Your task to perform on an android device: uninstall "Google Drive" Image 0: 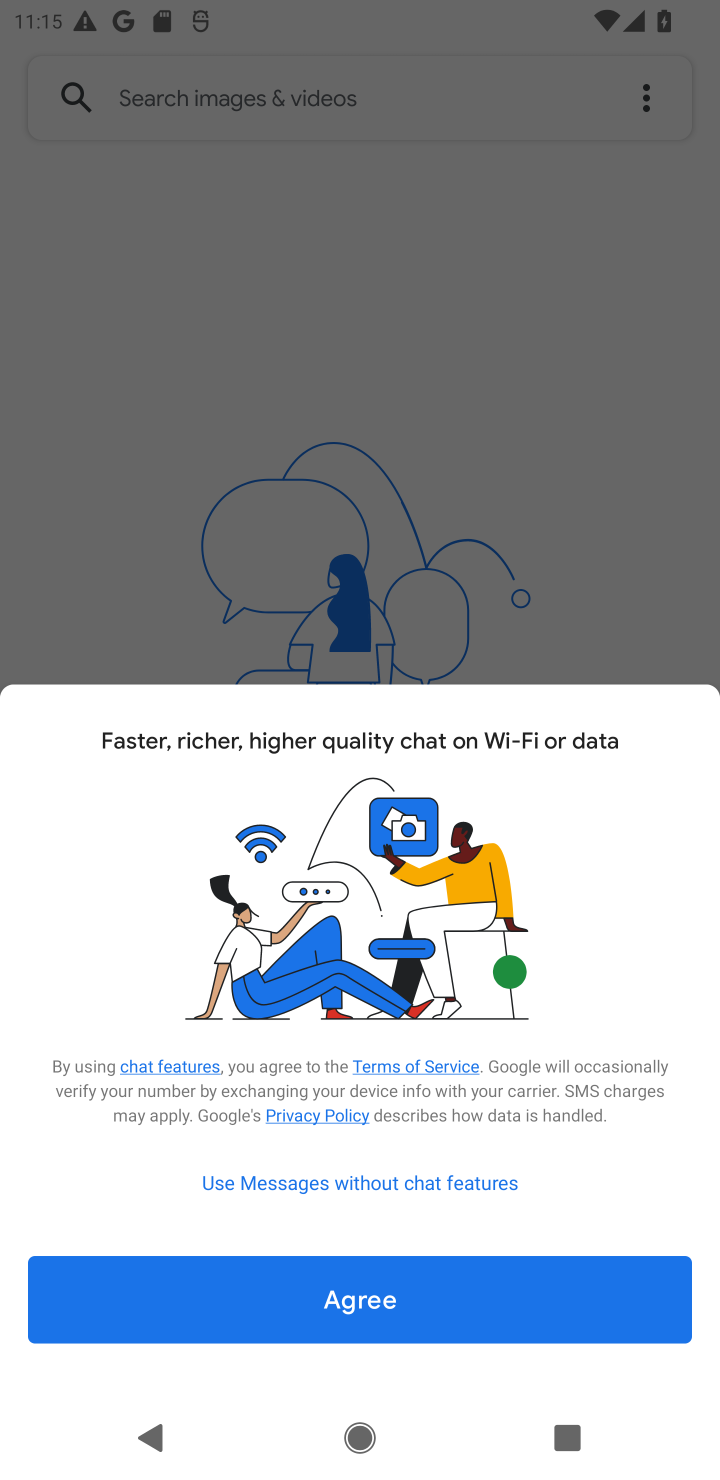
Step 0: press home button
Your task to perform on an android device: uninstall "Google Drive" Image 1: 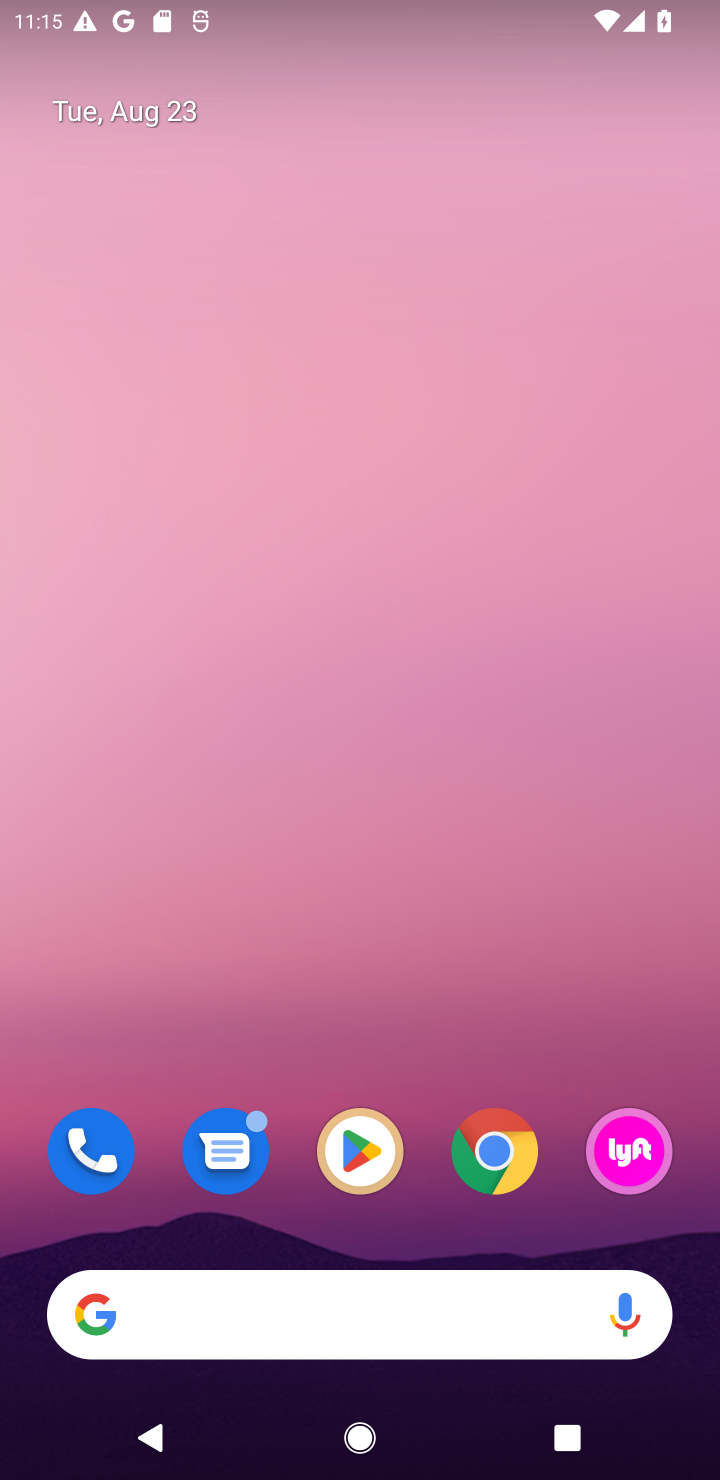
Step 1: click (382, 1145)
Your task to perform on an android device: uninstall "Google Drive" Image 2: 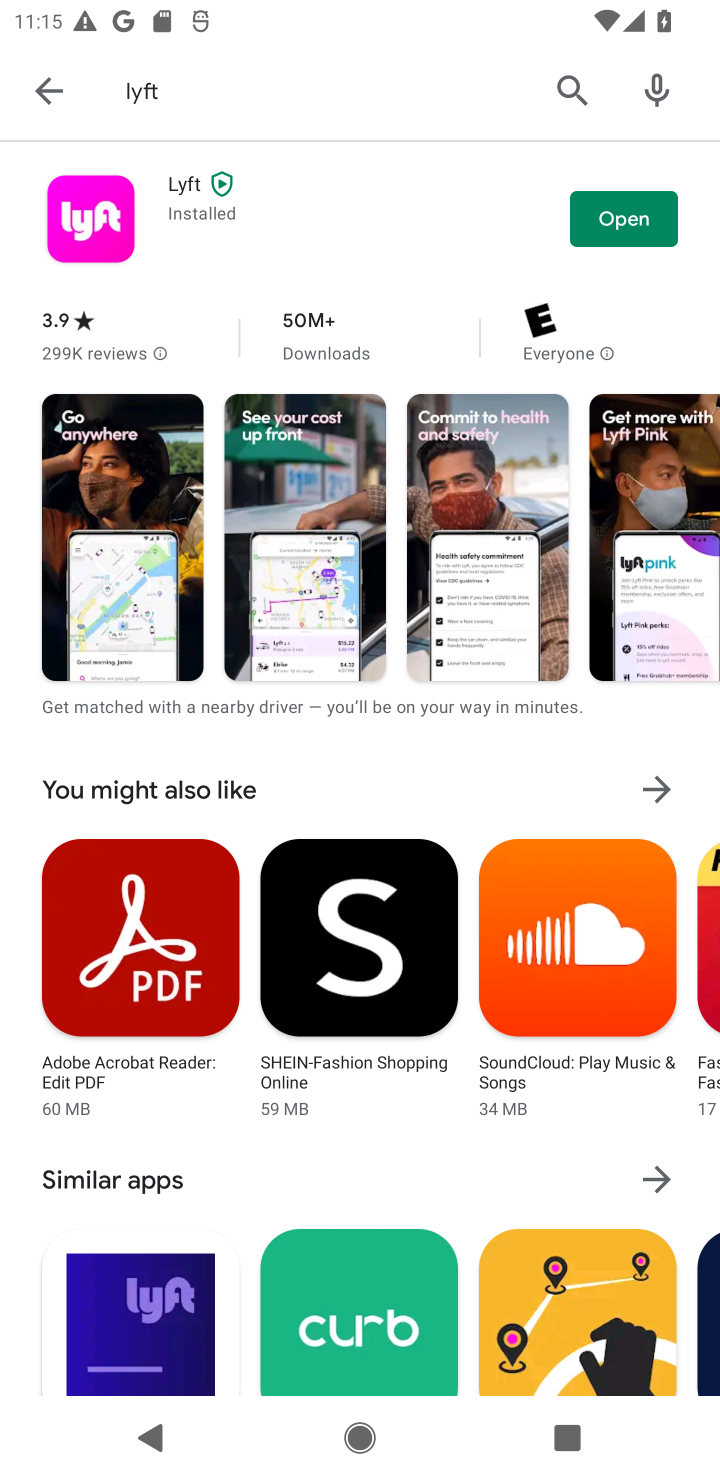
Step 2: click (556, 104)
Your task to perform on an android device: uninstall "Google Drive" Image 3: 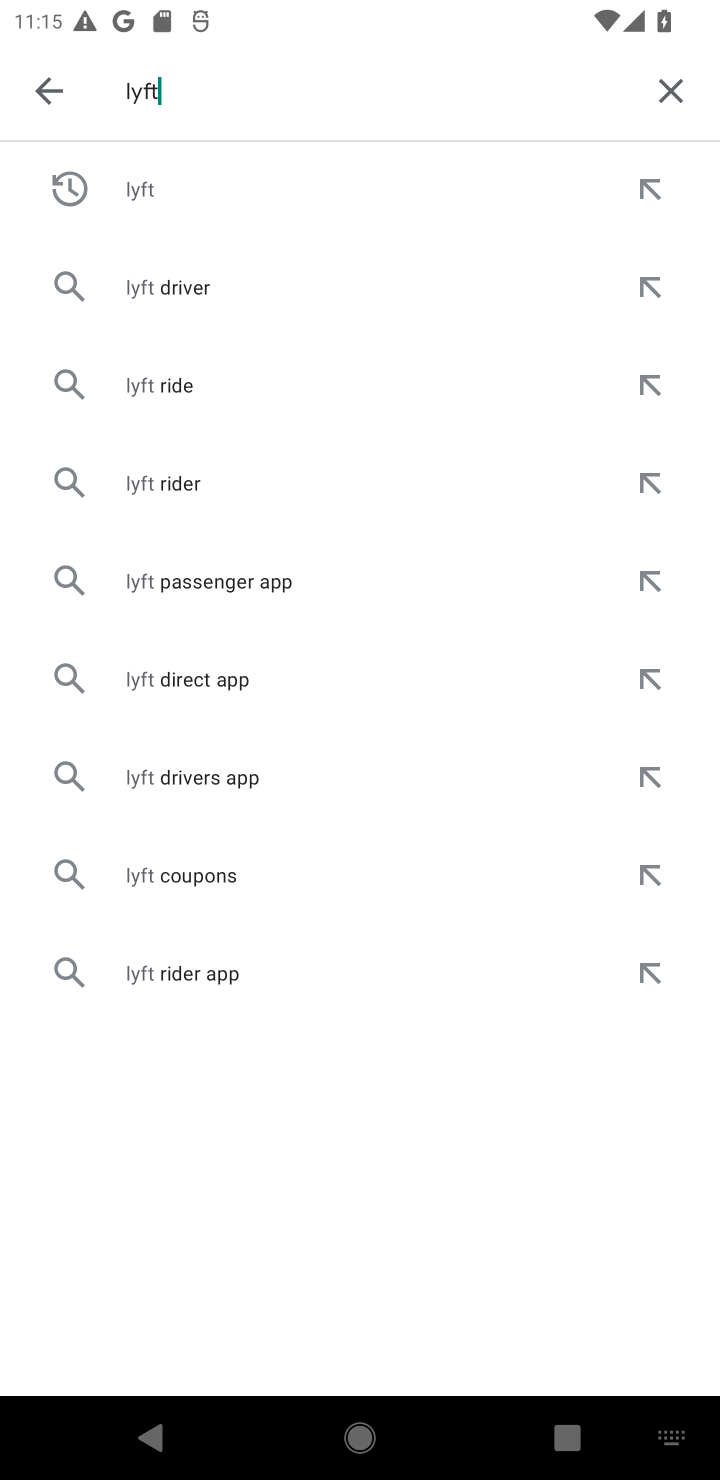
Step 3: click (665, 97)
Your task to perform on an android device: uninstall "Google Drive" Image 4: 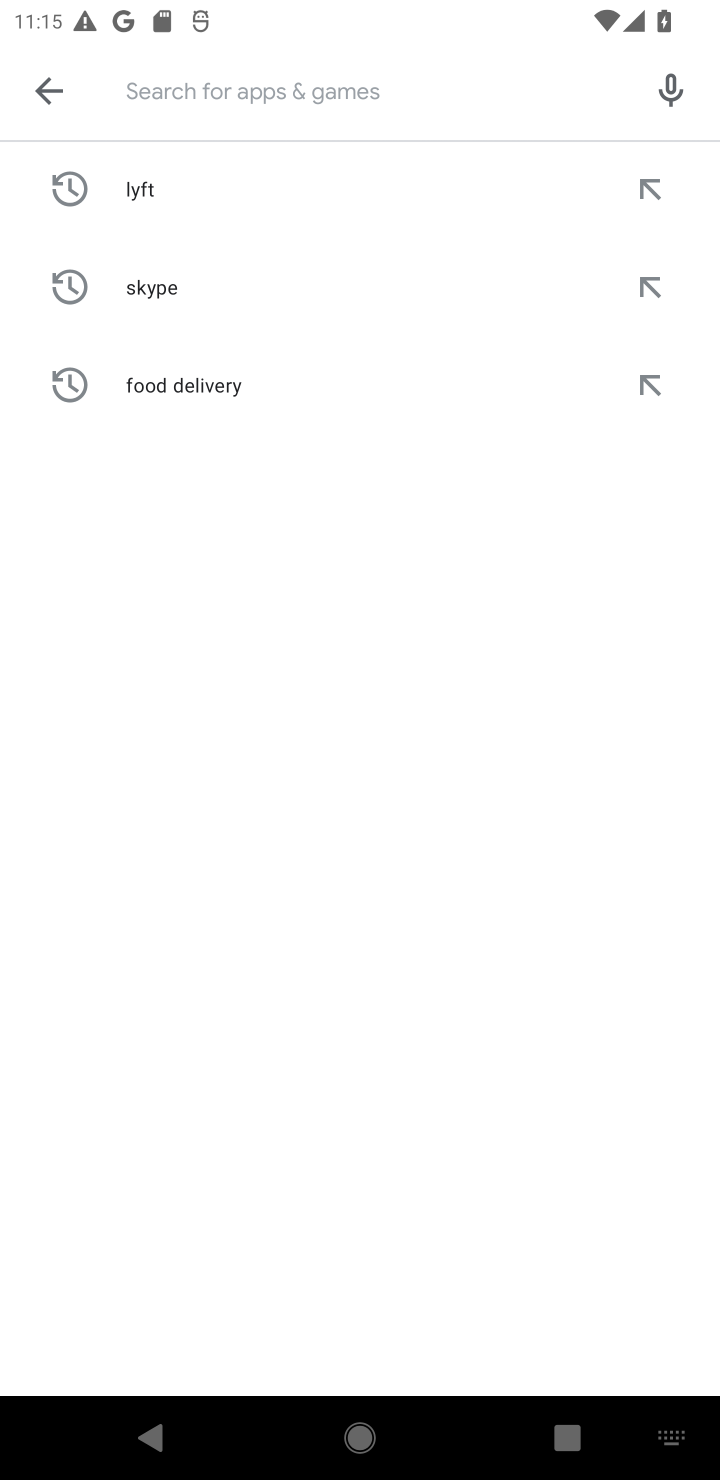
Step 4: type "Google Drive"
Your task to perform on an android device: uninstall "Google Drive" Image 5: 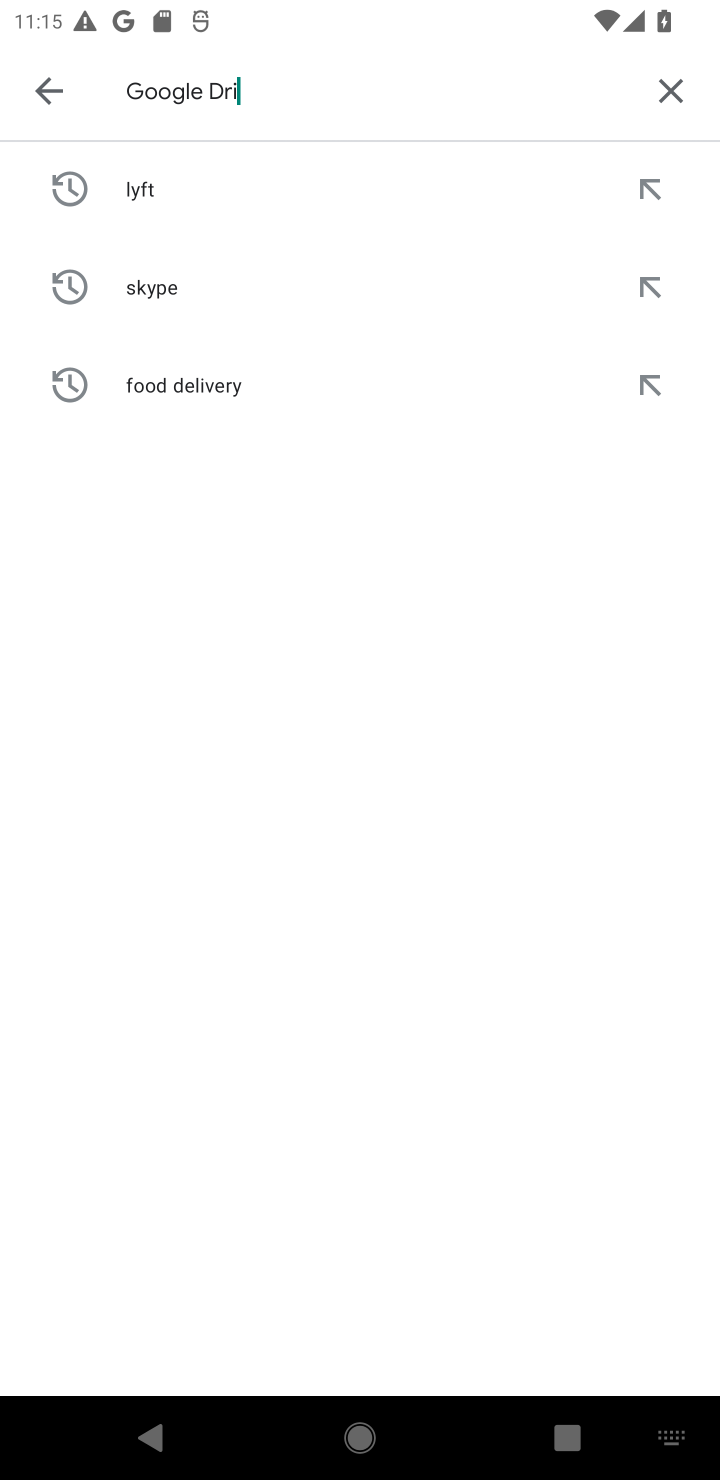
Step 5: type ""
Your task to perform on an android device: uninstall "Google Drive" Image 6: 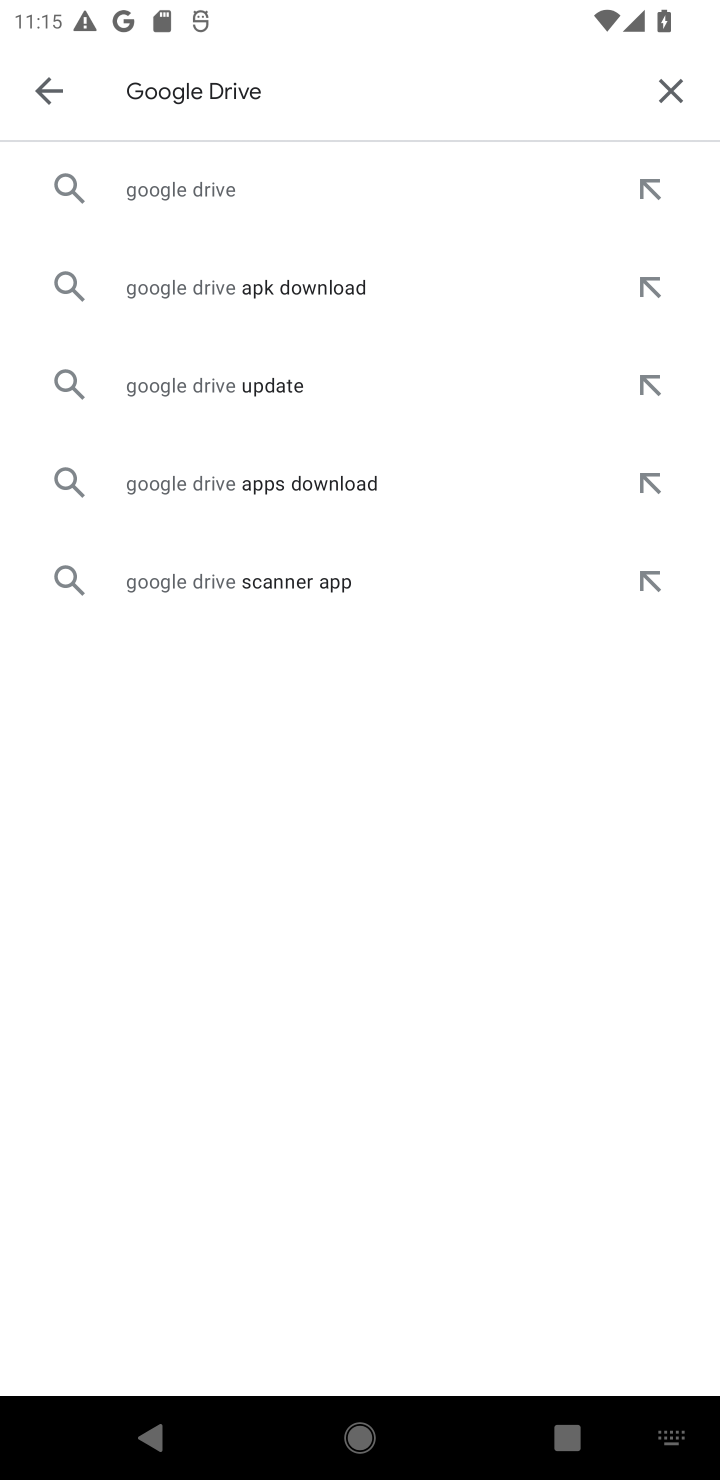
Step 6: click (272, 174)
Your task to perform on an android device: uninstall "Google Drive" Image 7: 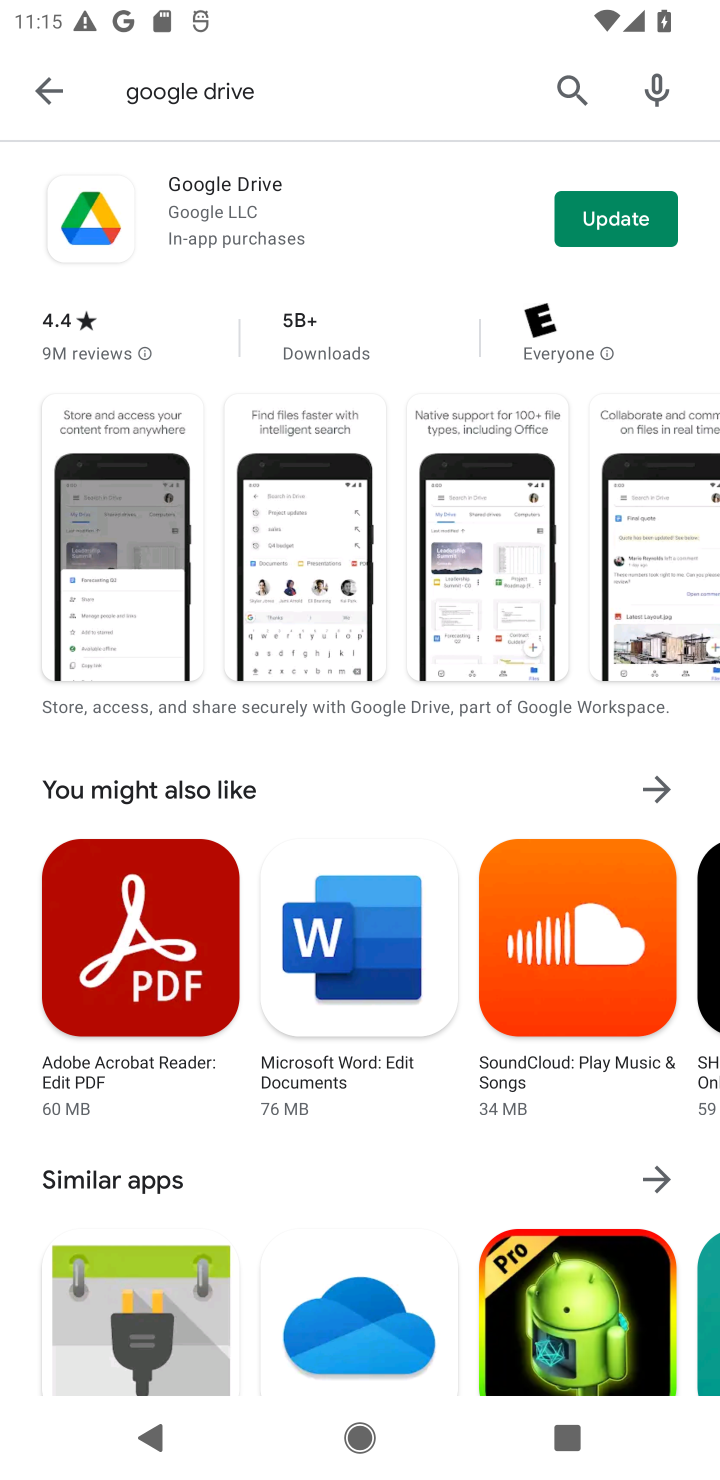
Step 7: click (465, 213)
Your task to perform on an android device: uninstall "Google Drive" Image 8: 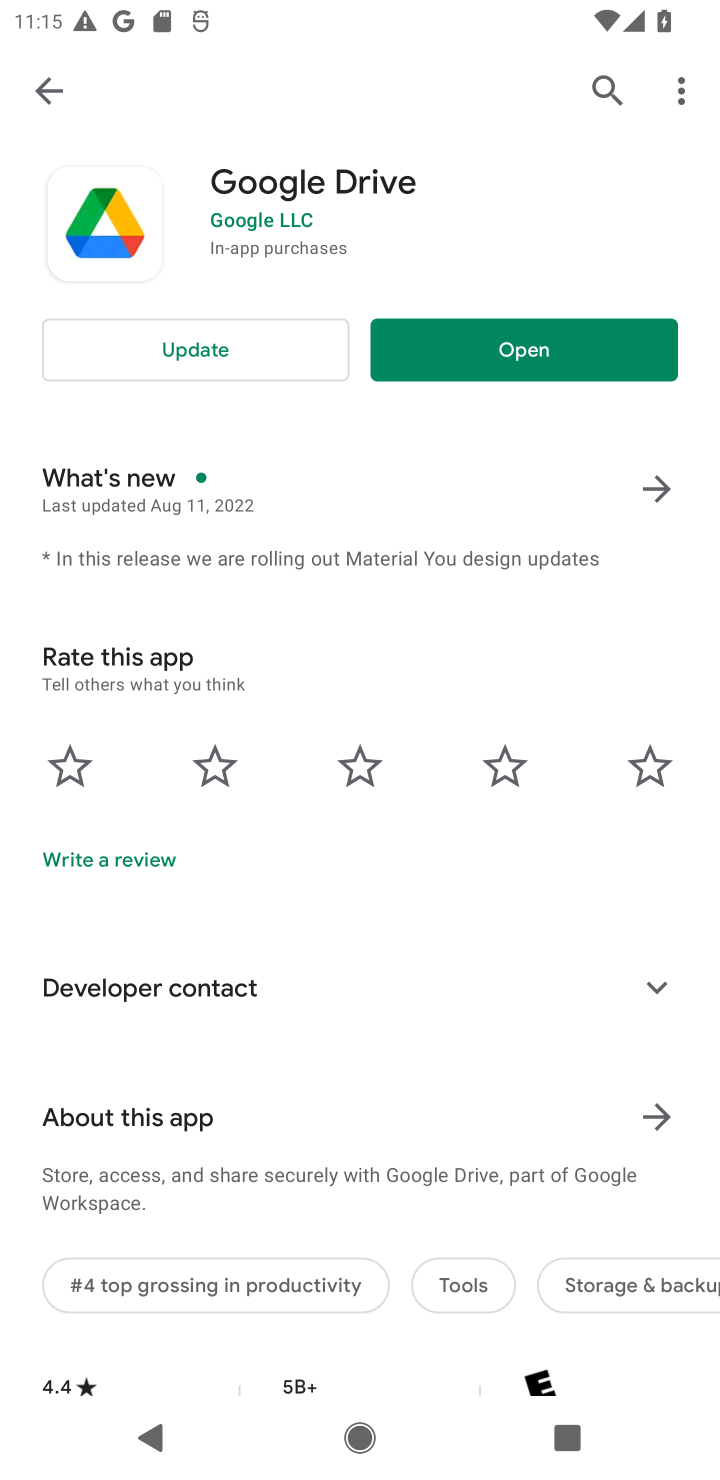
Step 8: click (307, 347)
Your task to perform on an android device: uninstall "Google Drive" Image 9: 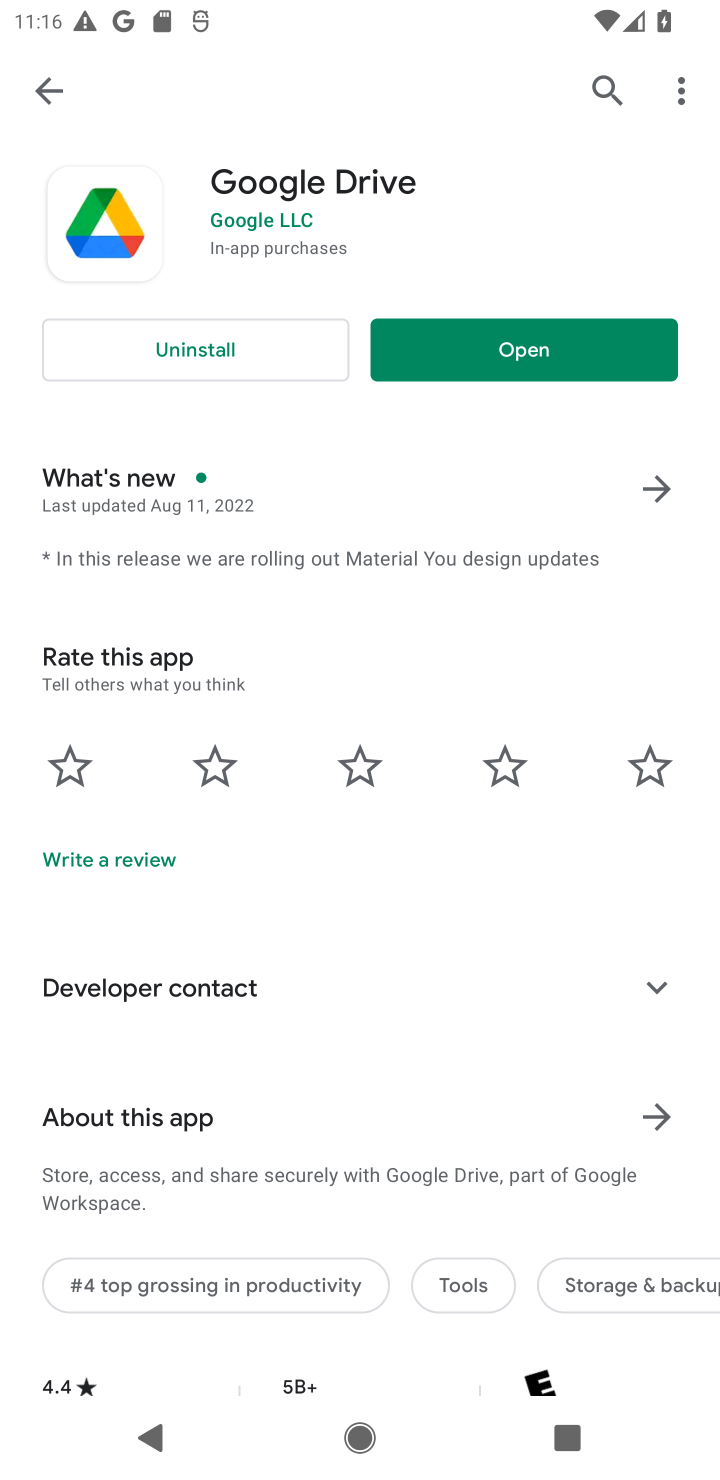
Step 9: click (209, 354)
Your task to perform on an android device: uninstall "Google Drive" Image 10: 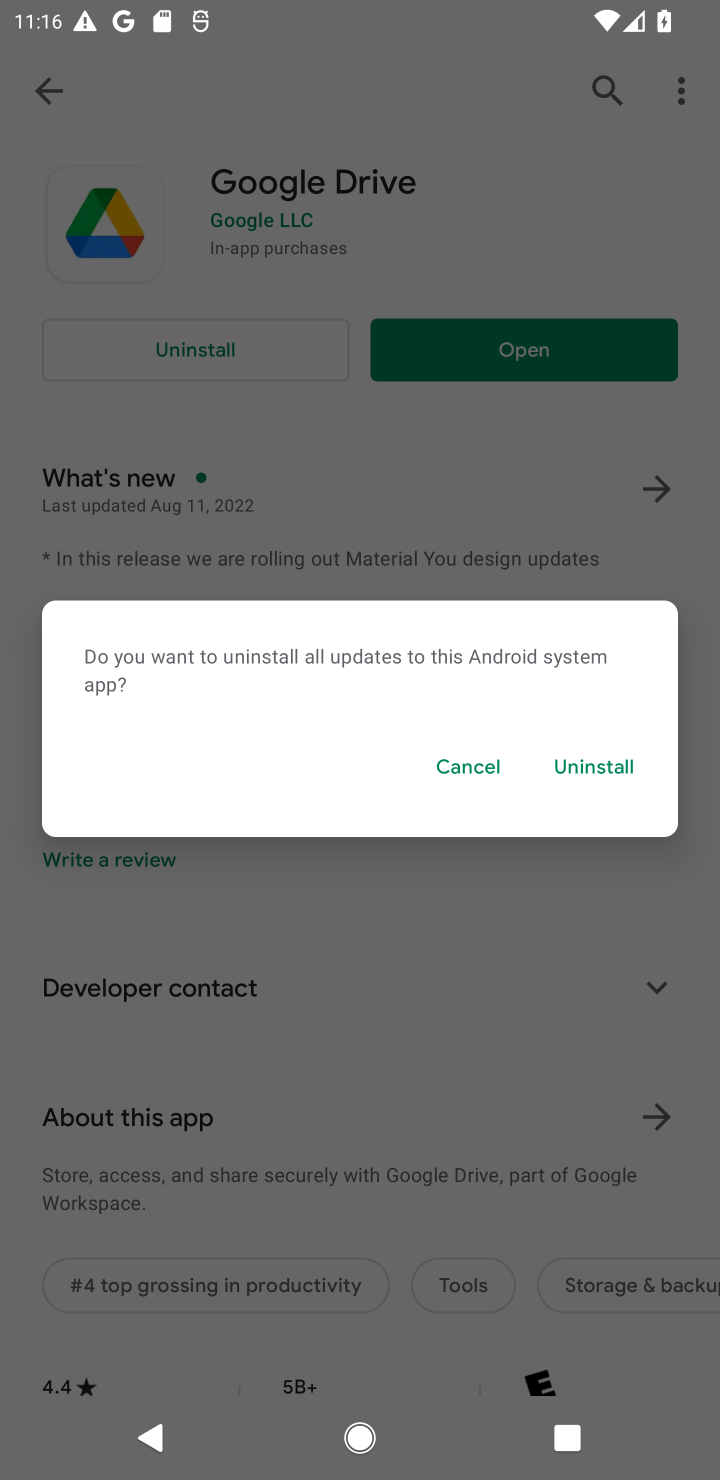
Step 10: click (586, 770)
Your task to perform on an android device: uninstall "Google Drive" Image 11: 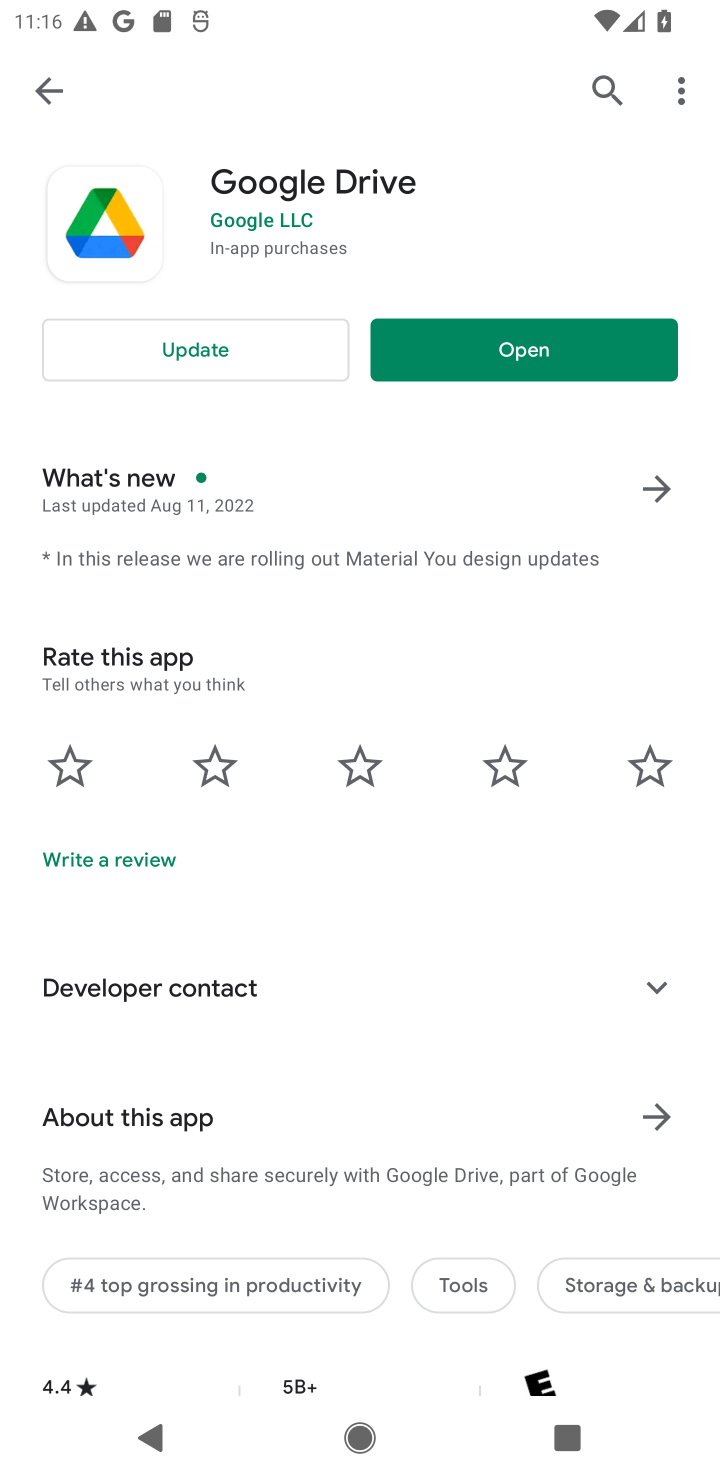
Step 11: task complete